Your task to perform on an android device: turn off priority inbox in the gmail app Image 0: 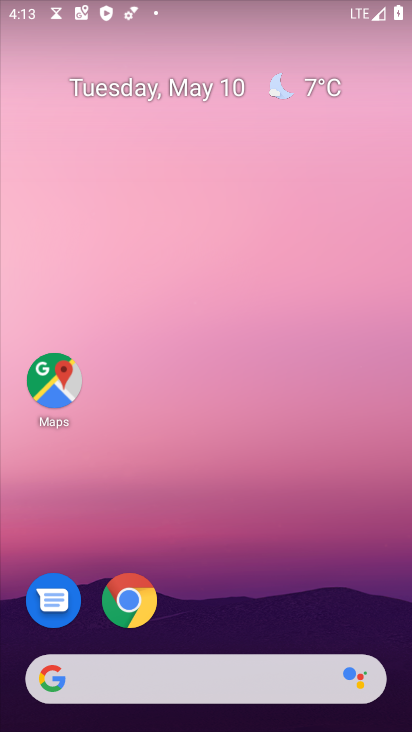
Step 0: drag from (283, 623) to (321, 301)
Your task to perform on an android device: turn off priority inbox in the gmail app Image 1: 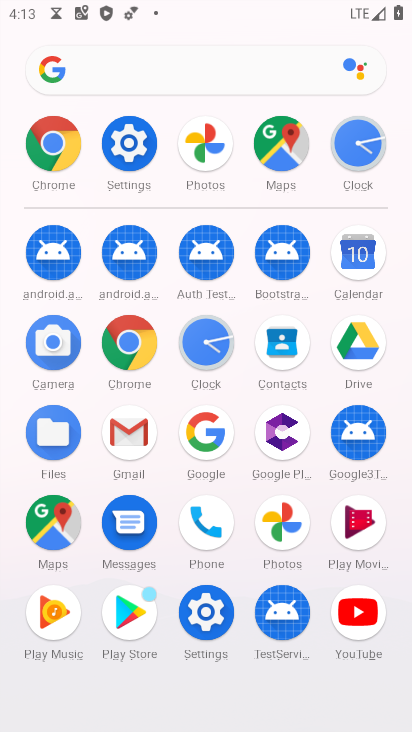
Step 1: click (114, 444)
Your task to perform on an android device: turn off priority inbox in the gmail app Image 2: 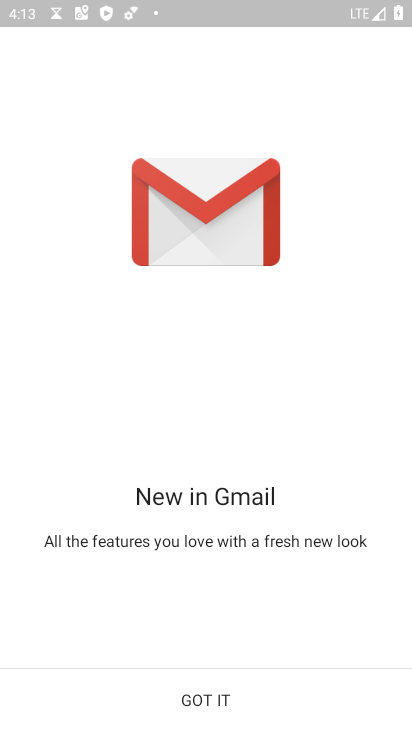
Step 2: task complete